Your task to perform on an android device: toggle airplane mode Image 0: 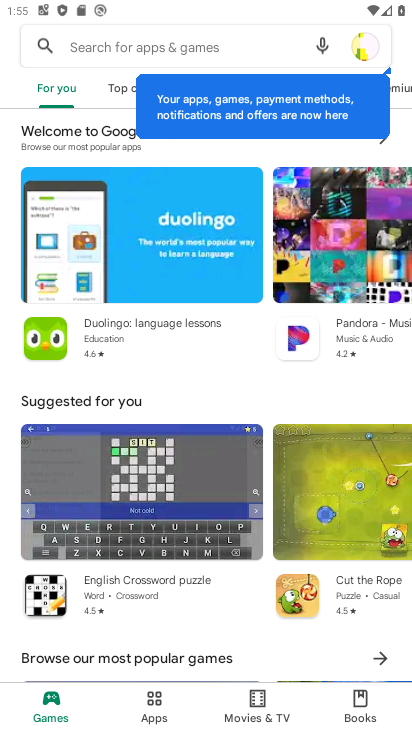
Step 0: press back button
Your task to perform on an android device: toggle airplane mode Image 1: 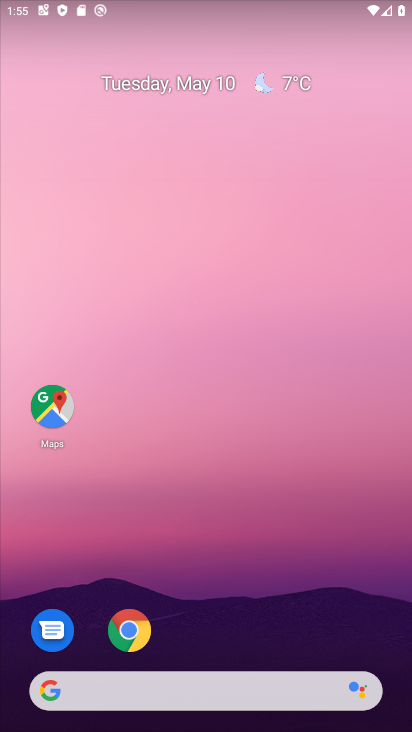
Step 1: drag from (261, 573) to (195, 2)
Your task to perform on an android device: toggle airplane mode Image 2: 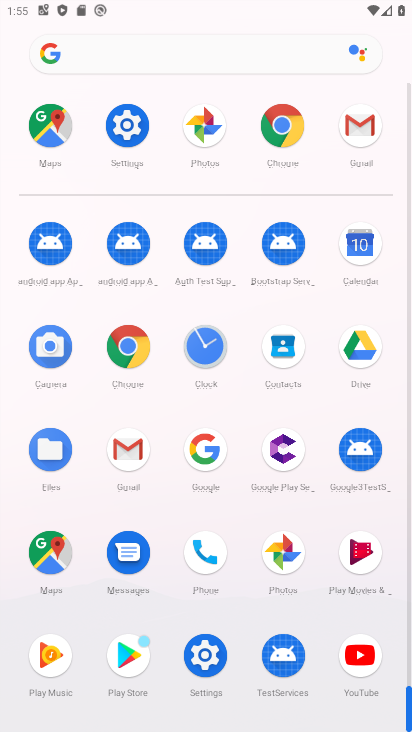
Step 2: click (127, 122)
Your task to perform on an android device: toggle airplane mode Image 3: 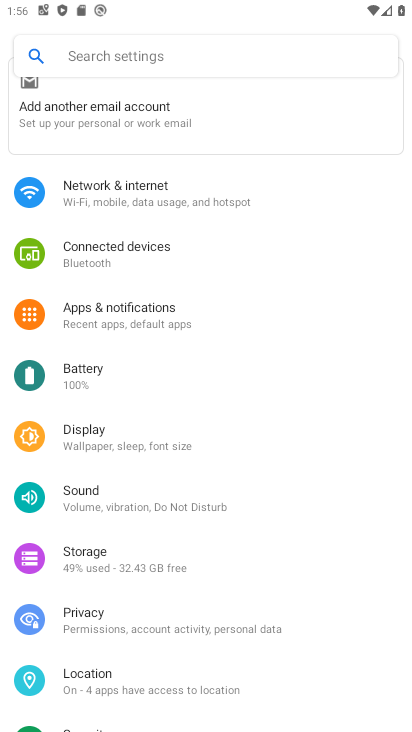
Step 3: click (154, 170)
Your task to perform on an android device: toggle airplane mode Image 4: 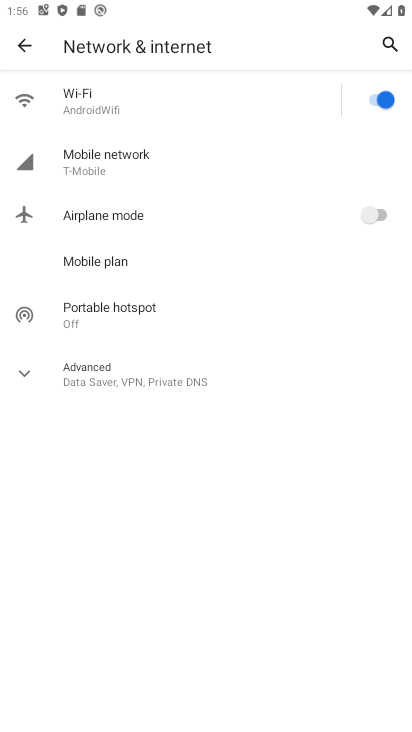
Step 4: click (371, 213)
Your task to perform on an android device: toggle airplane mode Image 5: 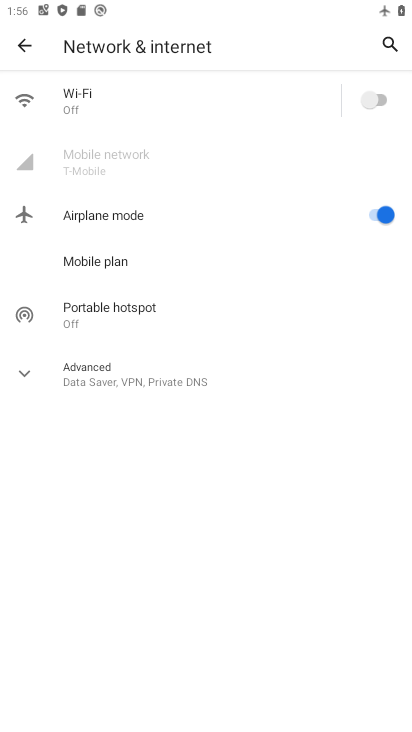
Step 5: task complete